Your task to perform on an android device: Go to calendar. Show me events next week Image 0: 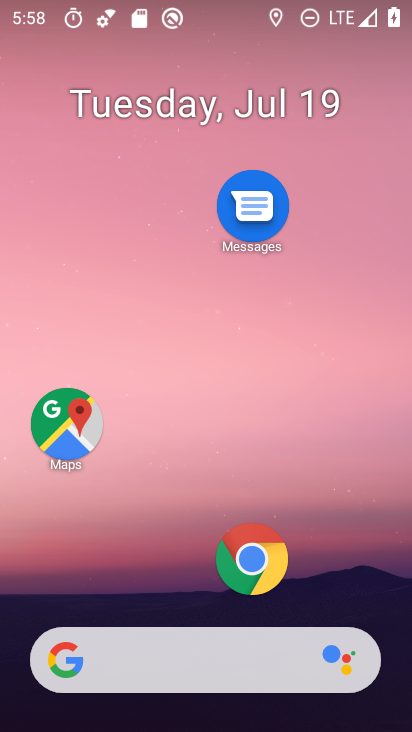
Step 0: drag from (140, 208) to (151, 53)
Your task to perform on an android device: Go to calendar. Show me events next week Image 1: 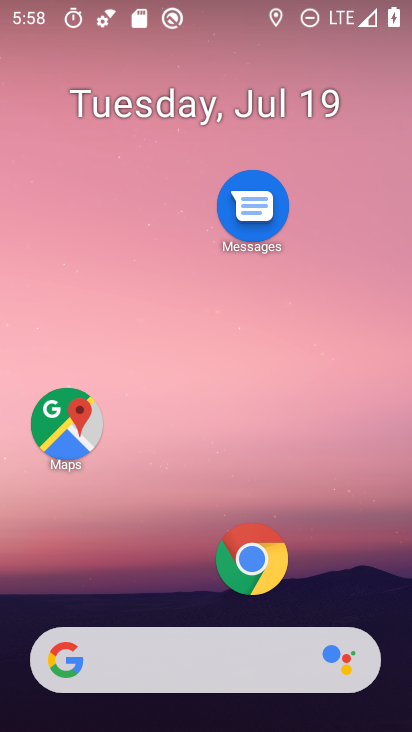
Step 1: drag from (145, 516) to (161, 27)
Your task to perform on an android device: Go to calendar. Show me events next week Image 2: 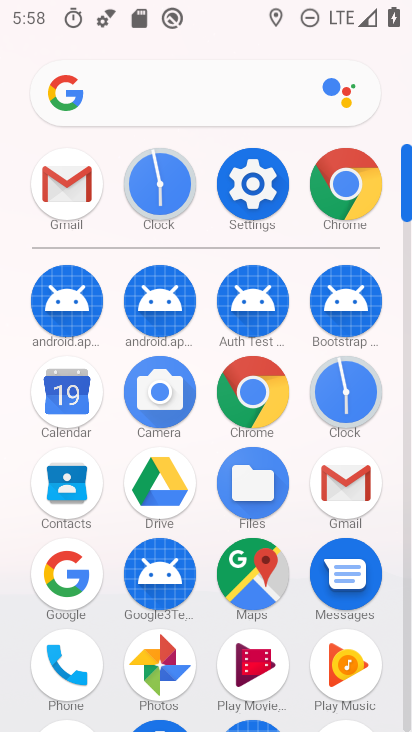
Step 2: click (63, 408)
Your task to perform on an android device: Go to calendar. Show me events next week Image 3: 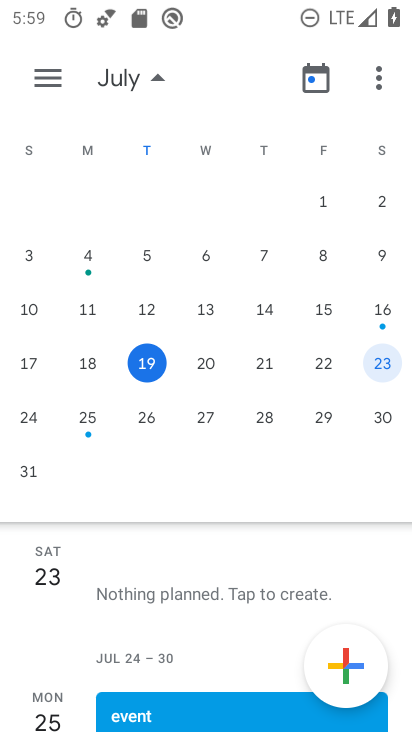
Step 3: click (370, 329)
Your task to perform on an android device: Go to calendar. Show me events next week Image 4: 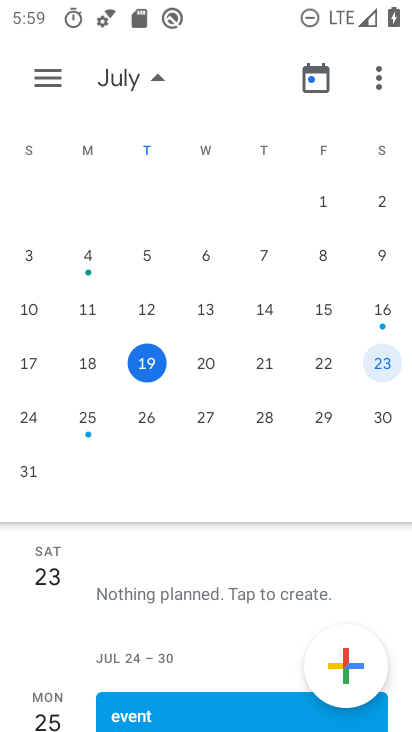
Step 4: click (94, 417)
Your task to perform on an android device: Go to calendar. Show me events next week Image 5: 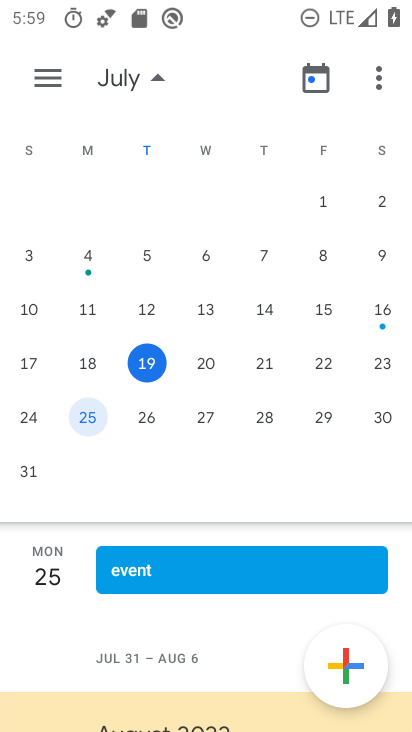
Step 5: task complete